Your task to perform on an android device: allow cookies in the chrome app Image 0: 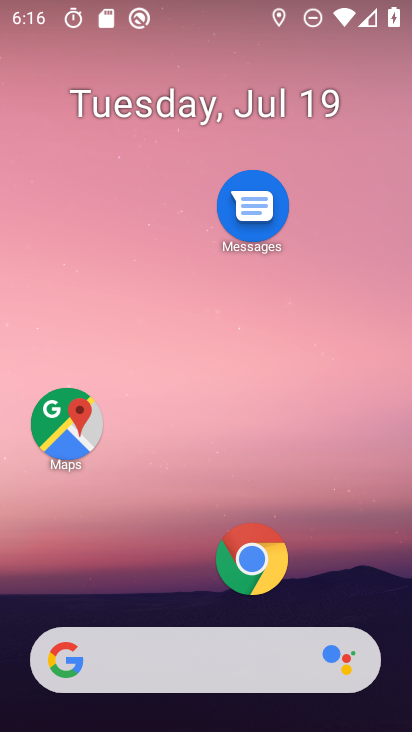
Step 0: click (245, 559)
Your task to perform on an android device: allow cookies in the chrome app Image 1: 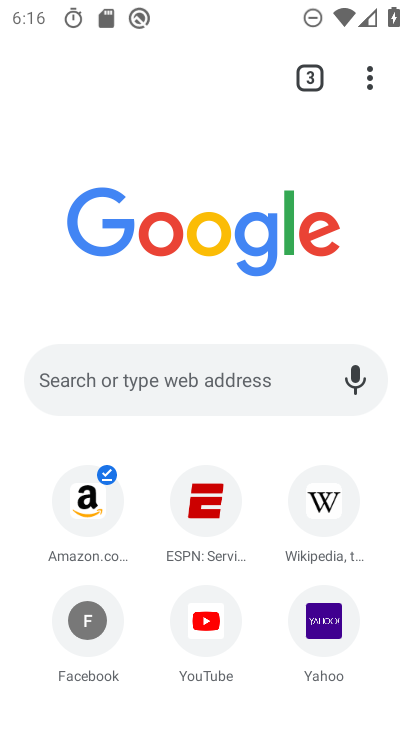
Step 1: drag from (366, 79) to (114, 639)
Your task to perform on an android device: allow cookies in the chrome app Image 2: 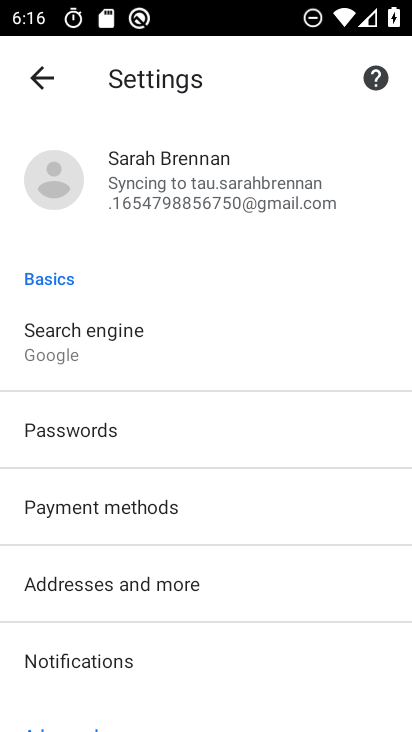
Step 2: drag from (125, 627) to (220, 63)
Your task to perform on an android device: allow cookies in the chrome app Image 3: 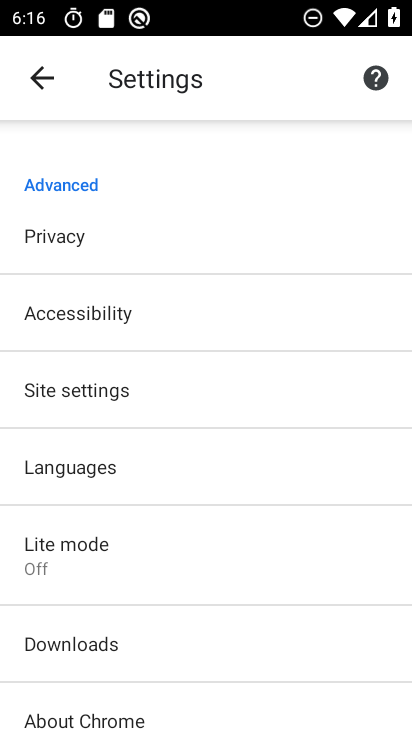
Step 3: click (117, 394)
Your task to perform on an android device: allow cookies in the chrome app Image 4: 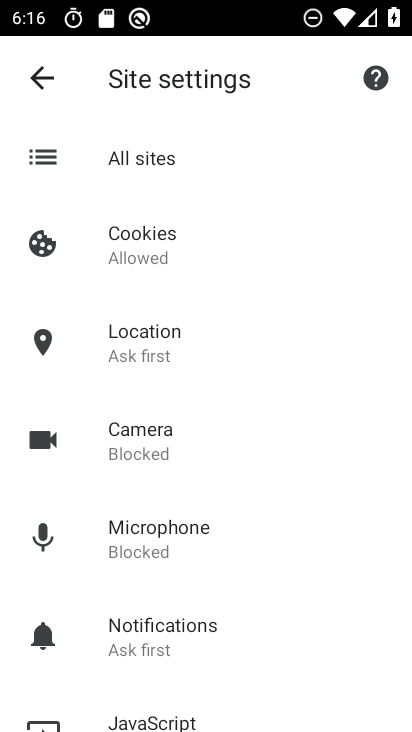
Step 4: click (182, 243)
Your task to perform on an android device: allow cookies in the chrome app Image 5: 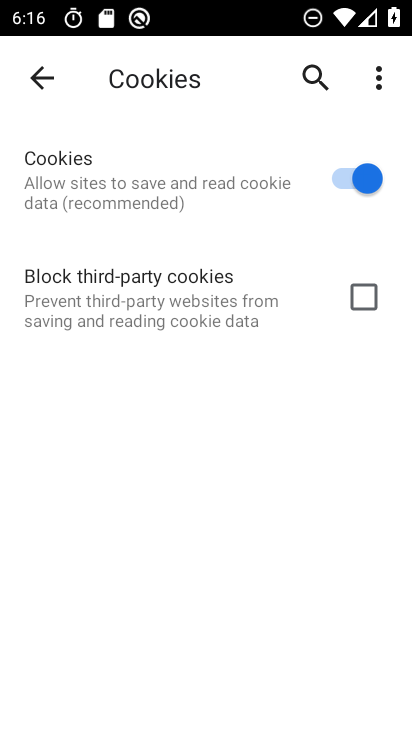
Step 5: task complete